Your task to perform on an android device: When is my next meeting? Image 0: 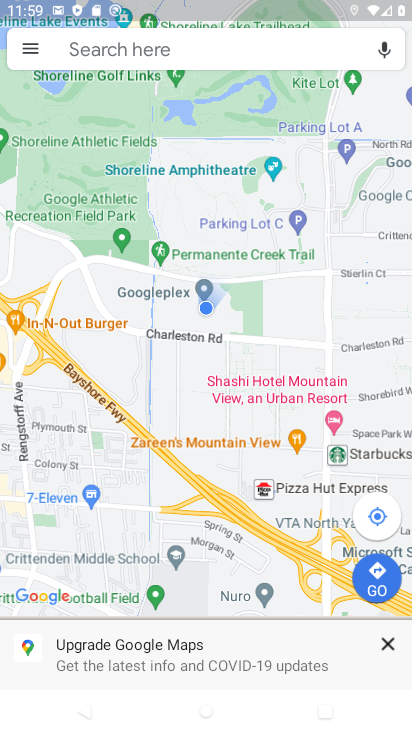
Step 0: press home button
Your task to perform on an android device: When is my next meeting? Image 1: 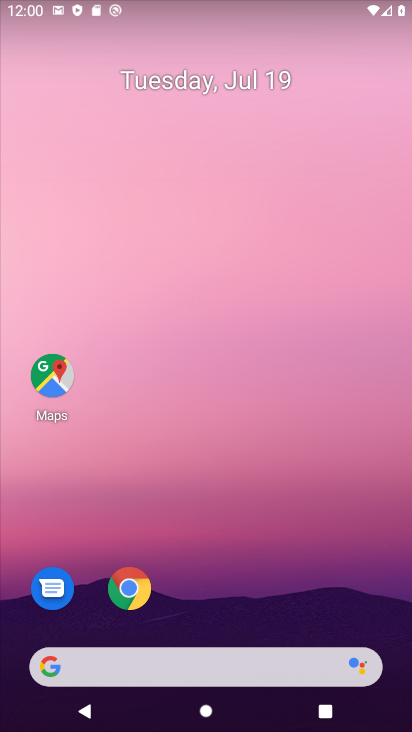
Step 1: drag from (341, 617) to (176, 77)
Your task to perform on an android device: When is my next meeting? Image 2: 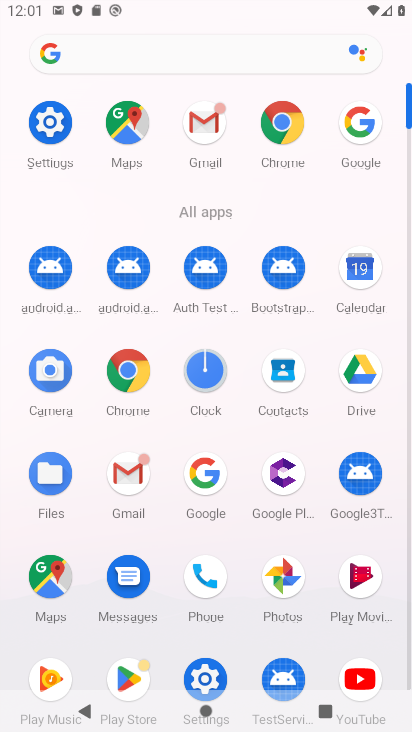
Step 2: click (361, 285)
Your task to perform on an android device: When is my next meeting? Image 3: 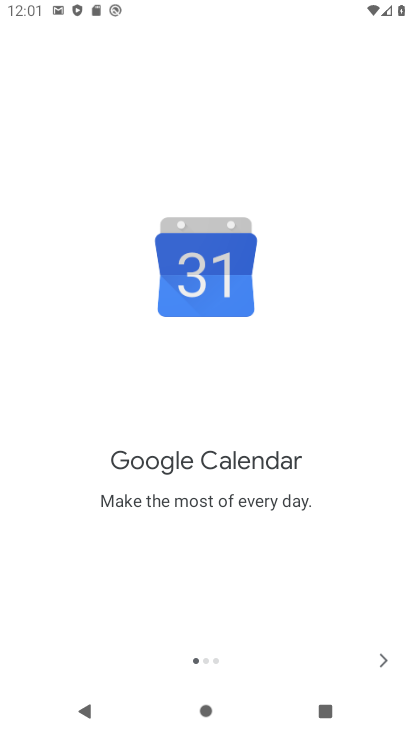
Step 3: click (381, 655)
Your task to perform on an android device: When is my next meeting? Image 4: 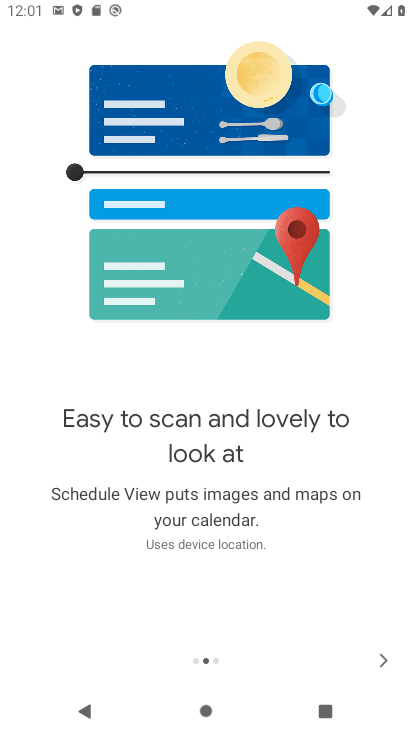
Step 4: click (381, 655)
Your task to perform on an android device: When is my next meeting? Image 5: 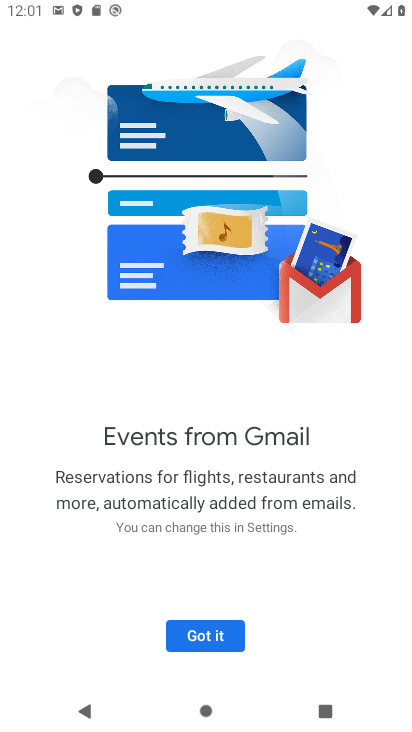
Step 5: click (229, 647)
Your task to perform on an android device: When is my next meeting? Image 6: 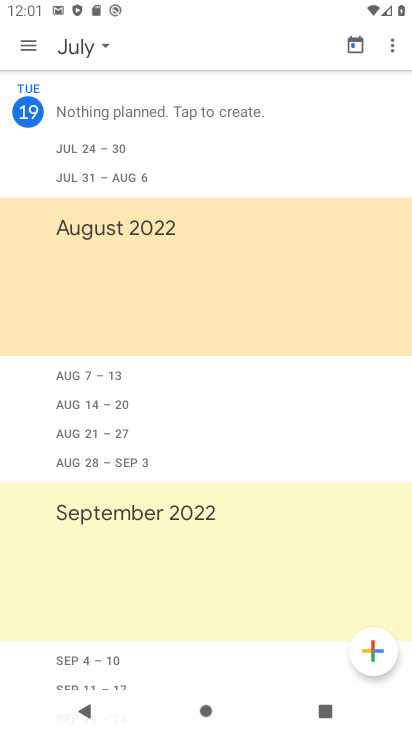
Step 6: task complete